Your task to perform on an android device: delete a single message in the gmail app Image 0: 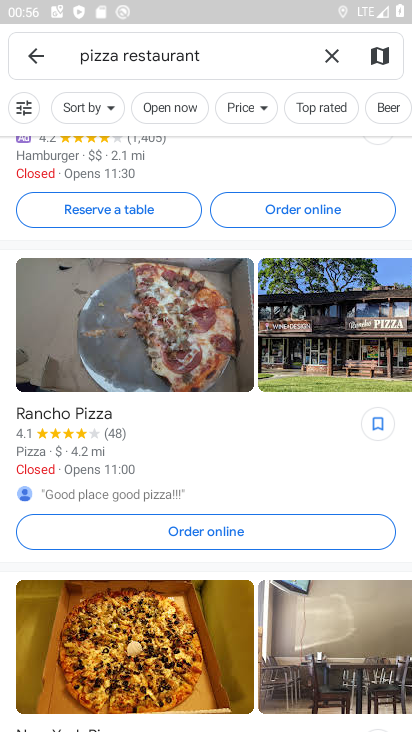
Step 0: press home button
Your task to perform on an android device: delete a single message in the gmail app Image 1: 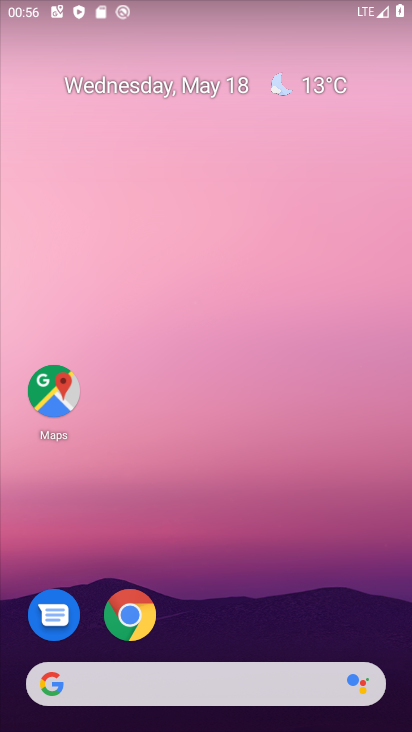
Step 1: drag from (158, 679) to (283, 208)
Your task to perform on an android device: delete a single message in the gmail app Image 2: 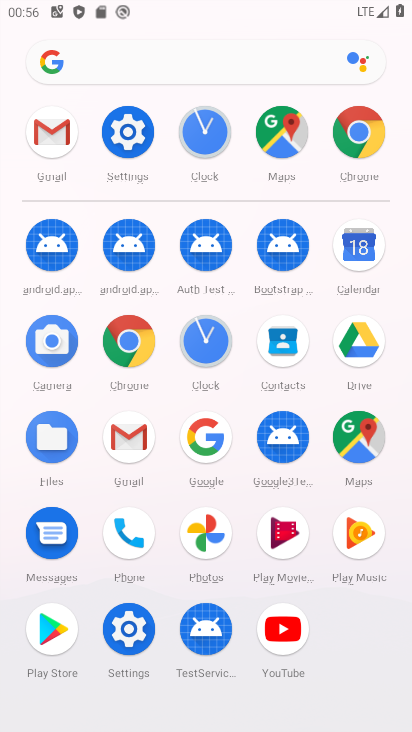
Step 2: click (58, 137)
Your task to perform on an android device: delete a single message in the gmail app Image 3: 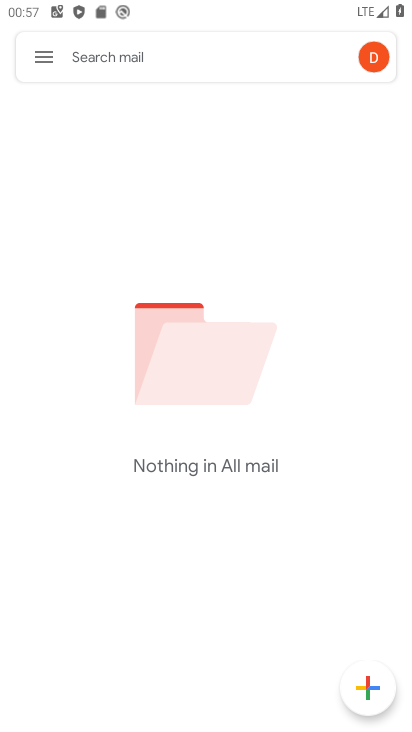
Step 3: task complete